Your task to perform on an android device: Go to eBay Image 0: 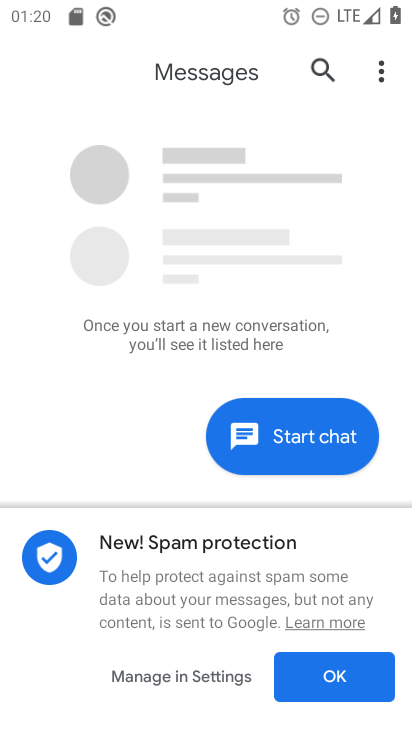
Step 0: press home button
Your task to perform on an android device: Go to eBay Image 1: 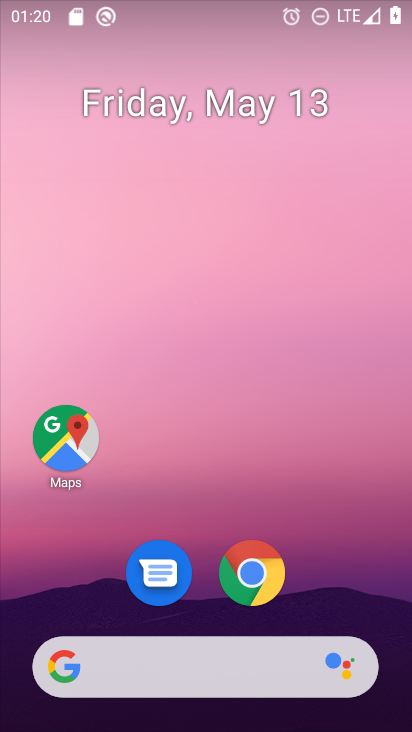
Step 1: click (239, 669)
Your task to perform on an android device: Go to eBay Image 2: 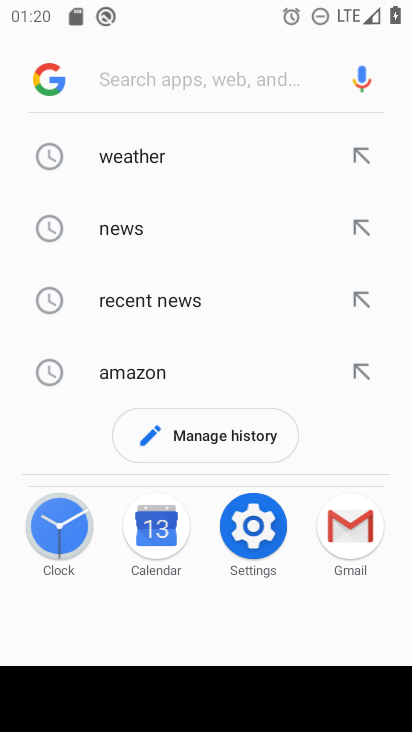
Step 2: click (226, 82)
Your task to perform on an android device: Go to eBay Image 3: 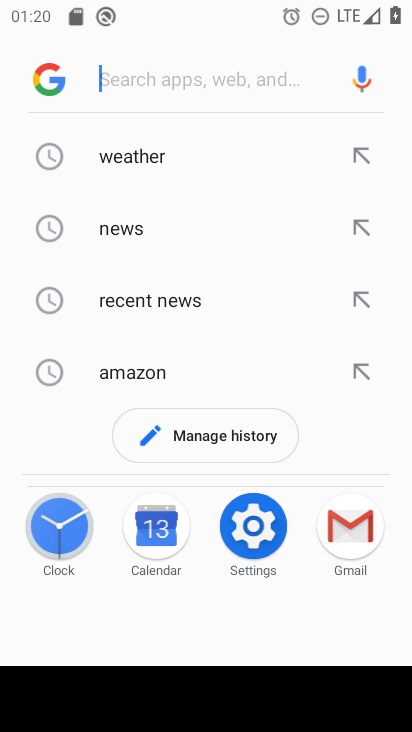
Step 3: type "ebay"
Your task to perform on an android device: Go to eBay Image 4: 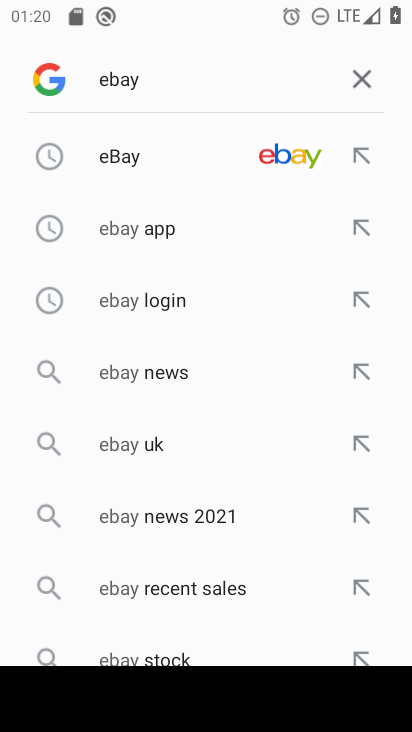
Step 4: click (284, 159)
Your task to perform on an android device: Go to eBay Image 5: 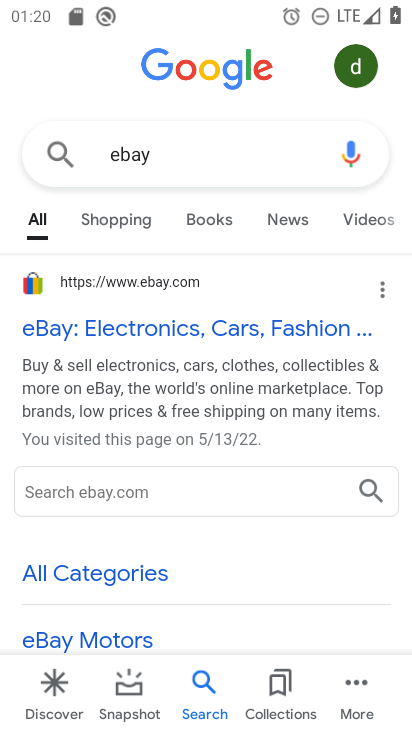
Step 5: click (188, 299)
Your task to perform on an android device: Go to eBay Image 6: 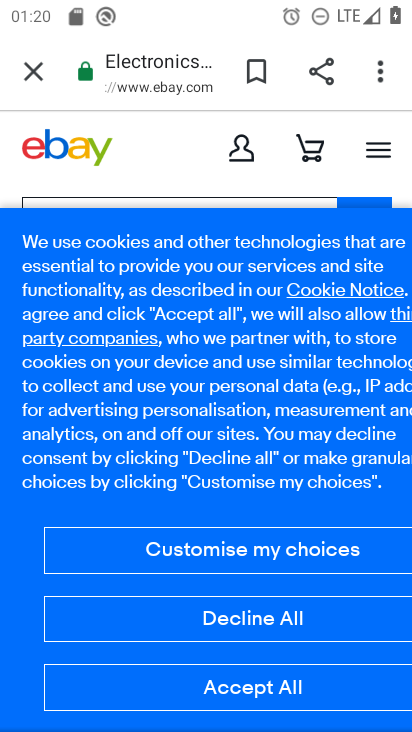
Step 6: task complete